Your task to perform on an android device: Open Chrome and go to the settings page Image 0: 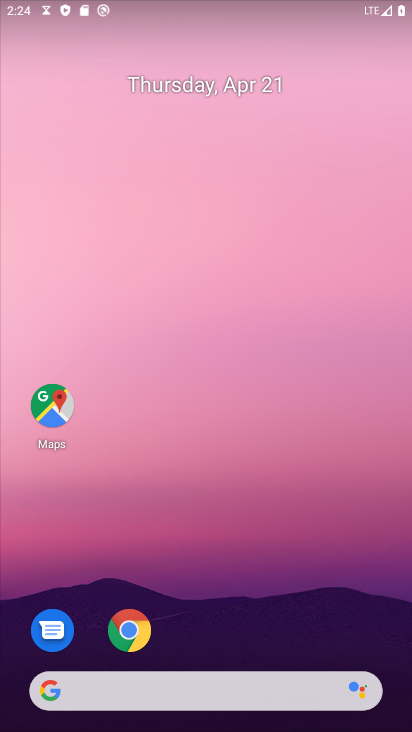
Step 0: click (133, 633)
Your task to perform on an android device: Open Chrome and go to the settings page Image 1: 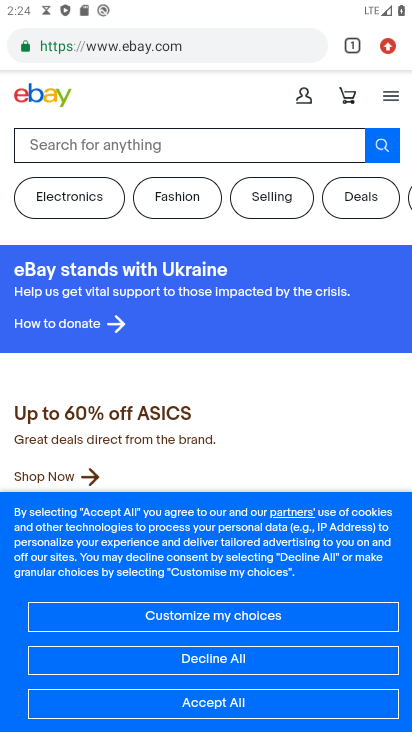
Step 1: click (389, 46)
Your task to perform on an android device: Open Chrome and go to the settings page Image 2: 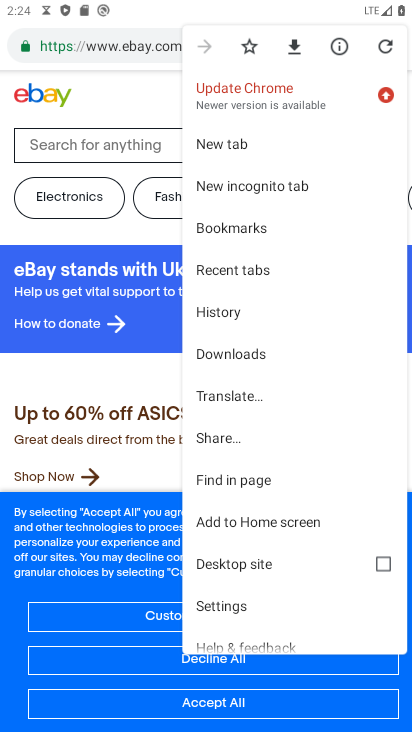
Step 2: click (219, 609)
Your task to perform on an android device: Open Chrome and go to the settings page Image 3: 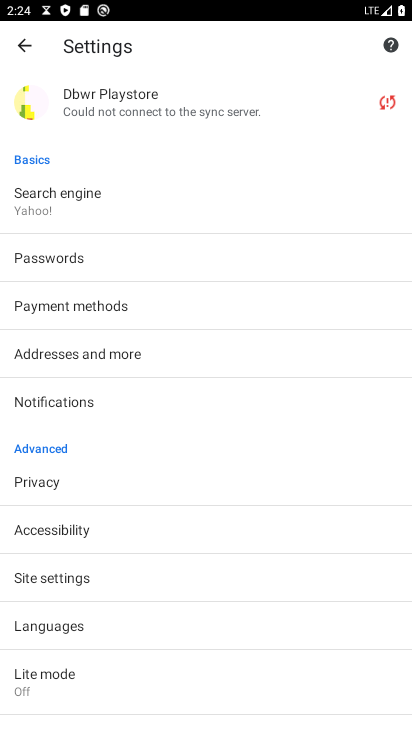
Step 3: task complete